Your task to perform on an android device: Go to internet settings Image 0: 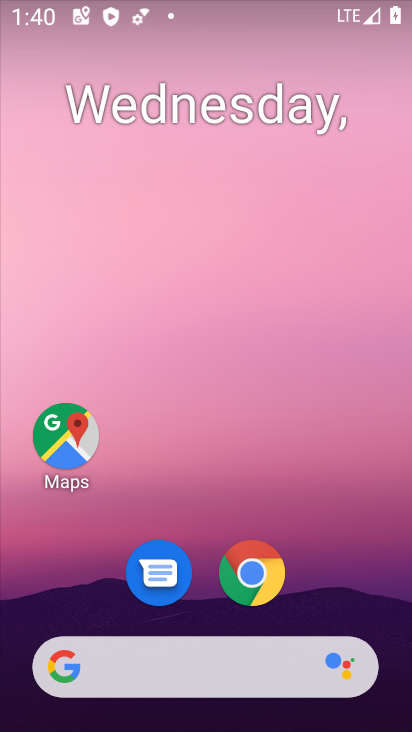
Step 0: drag from (203, 585) to (317, 178)
Your task to perform on an android device: Go to internet settings Image 1: 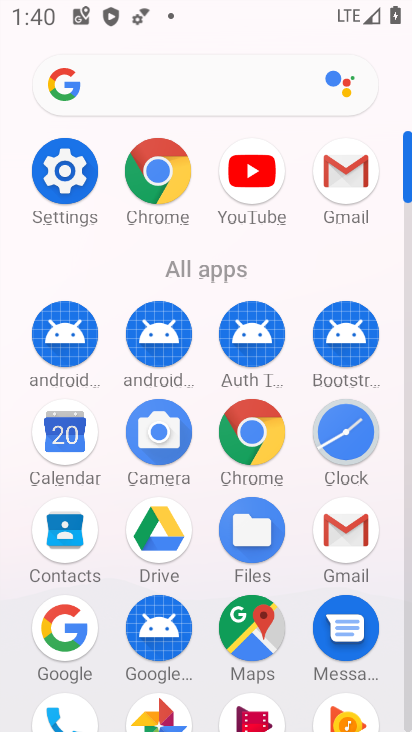
Step 1: click (62, 171)
Your task to perform on an android device: Go to internet settings Image 2: 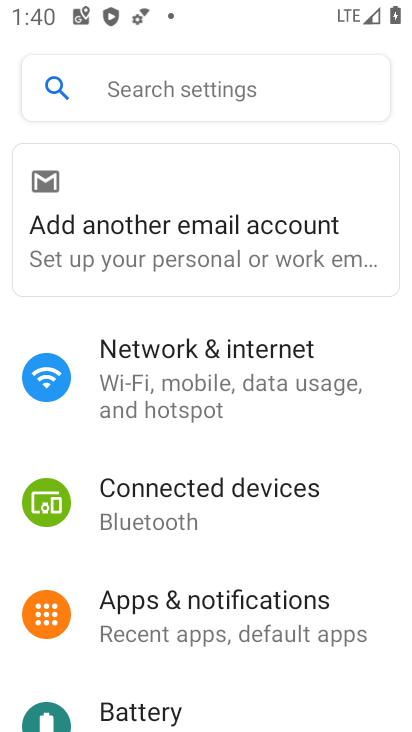
Step 2: click (220, 374)
Your task to perform on an android device: Go to internet settings Image 3: 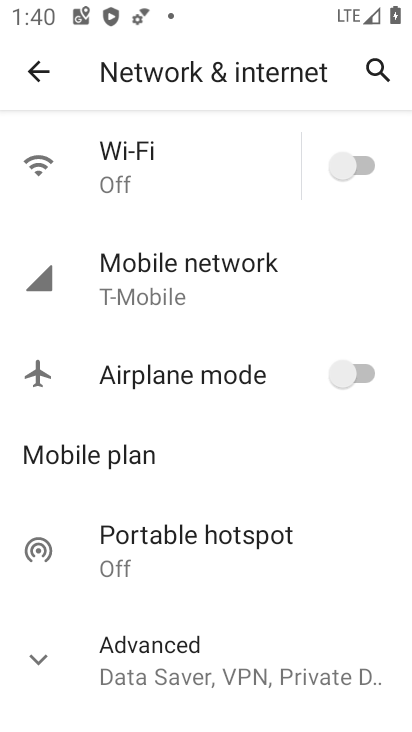
Step 3: click (171, 166)
Your task to perform on an android device: Go to internet settings Image 4: 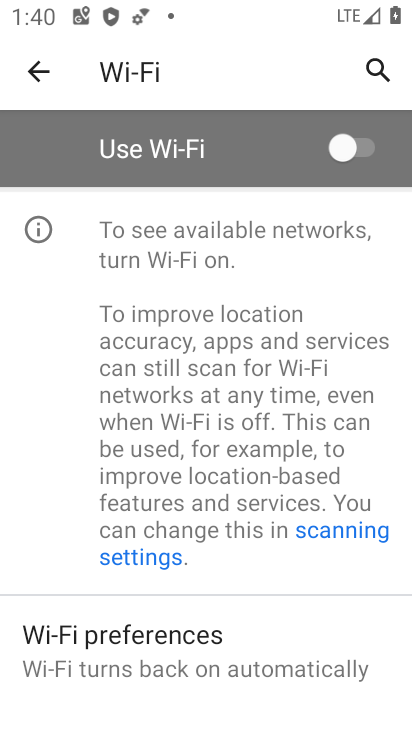
Step 4: task complete